Your task to perform on an android device: Go to Amazon Image 0: 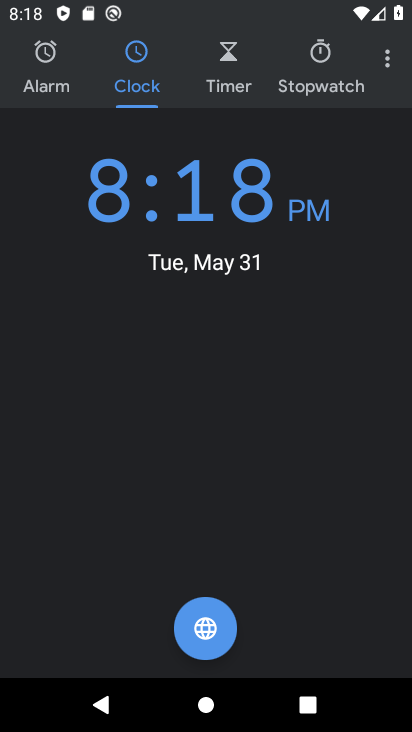
Step 0: click (278, 424)
Your task to perform on an android device: Go to Amazon Image 1: 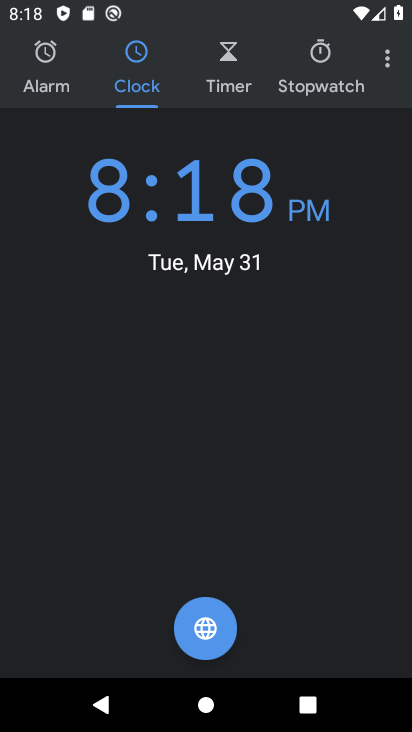
Step 1: press home button
Your task to perform on an android device: Go to Amazon Image 2: 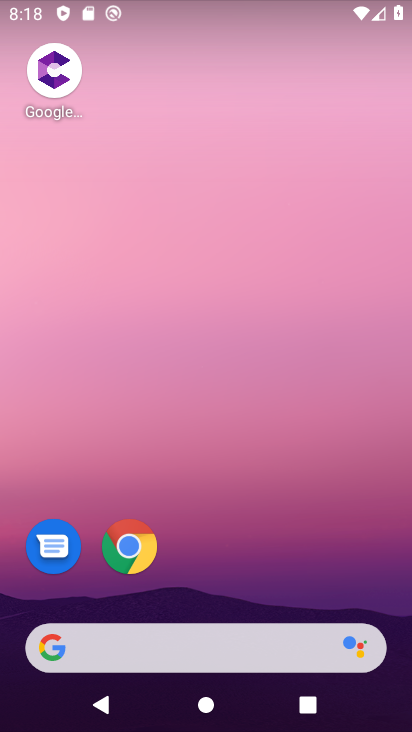
Step 2: click (141, 547)
Your task to perform on an android device: Go to Amazon Image 3: 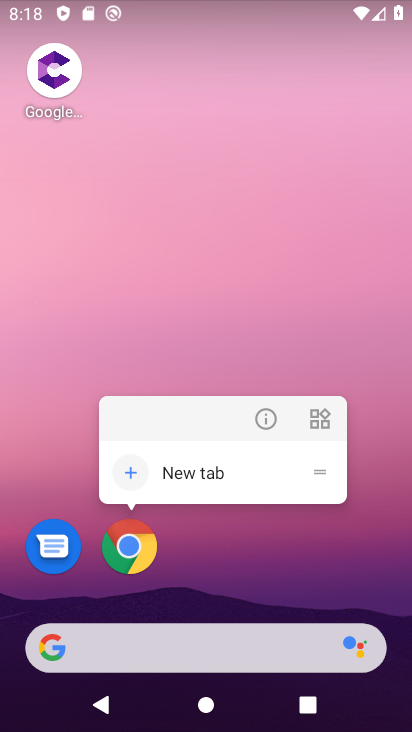
Step 3: click (132, 543)
Your task to perform on an android device: Go to Amazon Image 4: 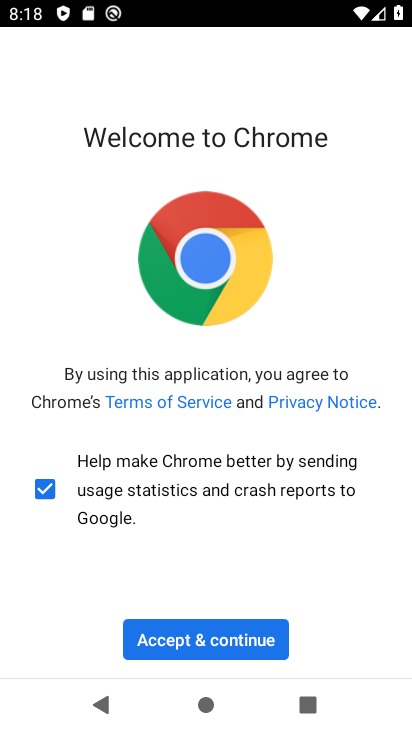
Step 4: click (226, 646)
Your task to perform on an android device: Go to Amazon Image 5: 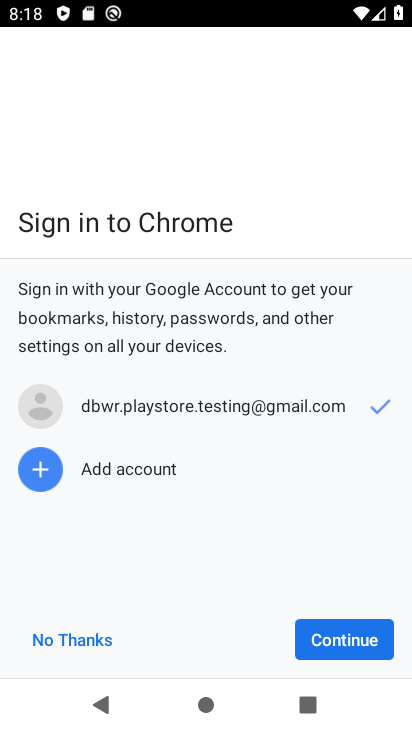
Step 5: click (357, 637)
Your task to perform on an android device: Go to Amazon Image 6: 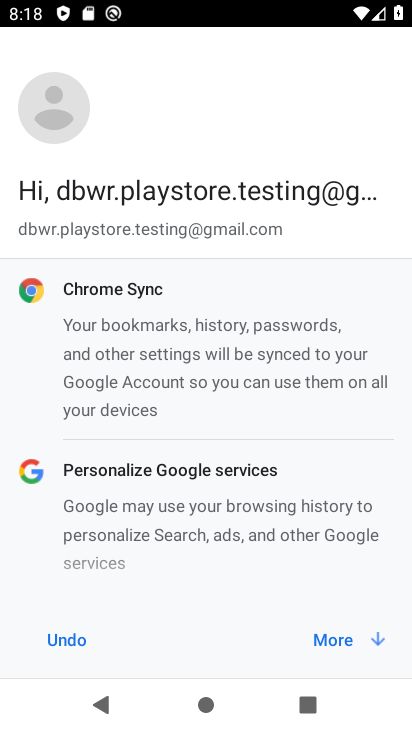
Step 6: click (357, 637)
Your task to perform on an android device: Go to Amazon Image 7: 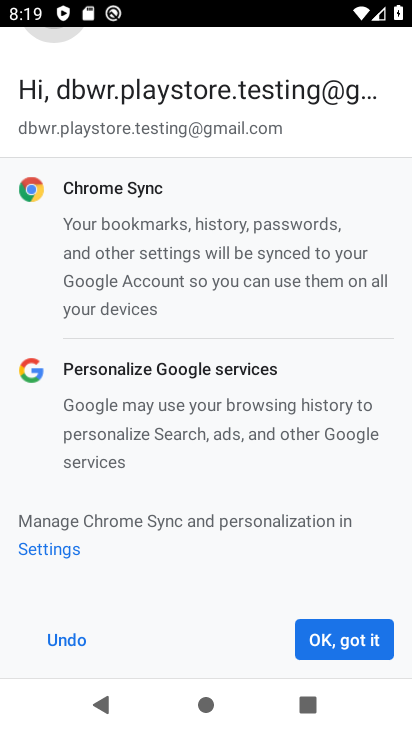
Step 7: click (354, 646)
Your task to perform on an android device: Go to Amazon Image 8: 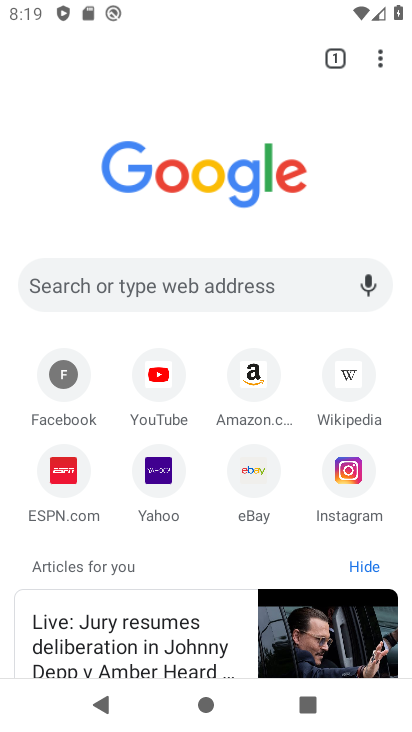
Step 8: click (196, 279)
Your task to perform on an android device: Go to Amazon Image 9: 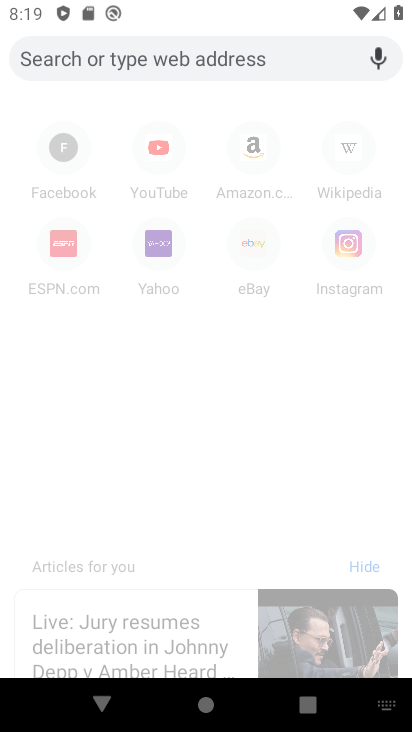
Step 9: type "Amazon"
Your task to perform on an android device: Go to Amazon Image 10: 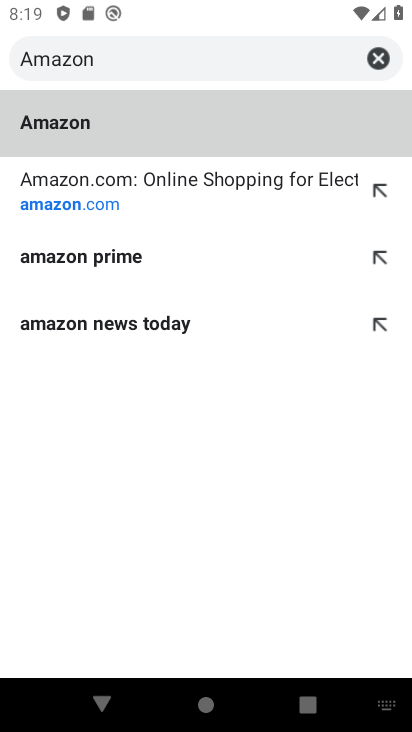
Step 10: click (68, 201)
Your task to perform on an android device: Go to Amazon Image 11: 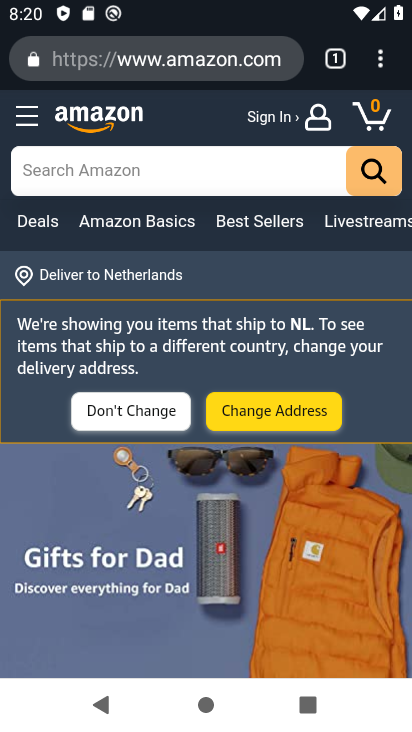
Step 11: task complete